Your task to perform on an android device: Go to settings Image 0: 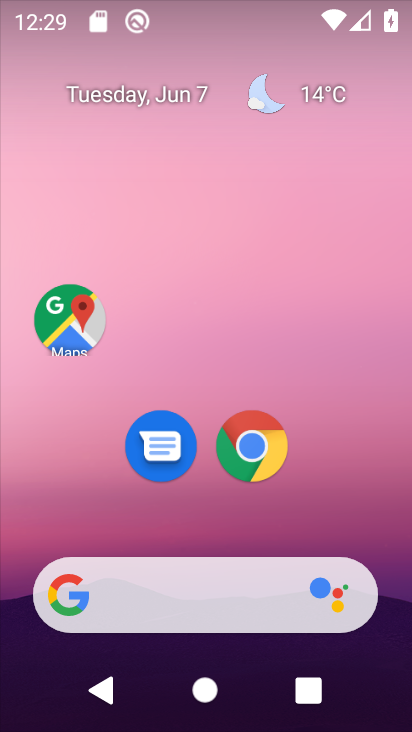
Step 0: drag from (199, 541) to (241, 14)
Your task to perform on an android device: Go to settings Image 1: 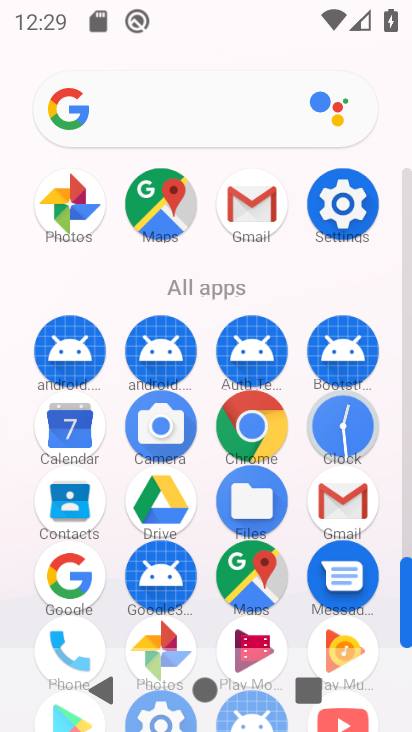
Step 1: click (344, 187)
Your task to perform on an android device: Go to settings Image 2: 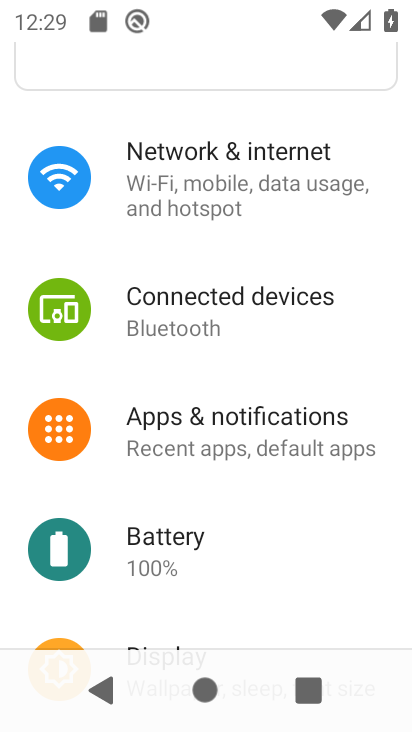
Step 2: task complete